Your task to perform on an android device: install app "Duolingo: language lessons" Image 0: 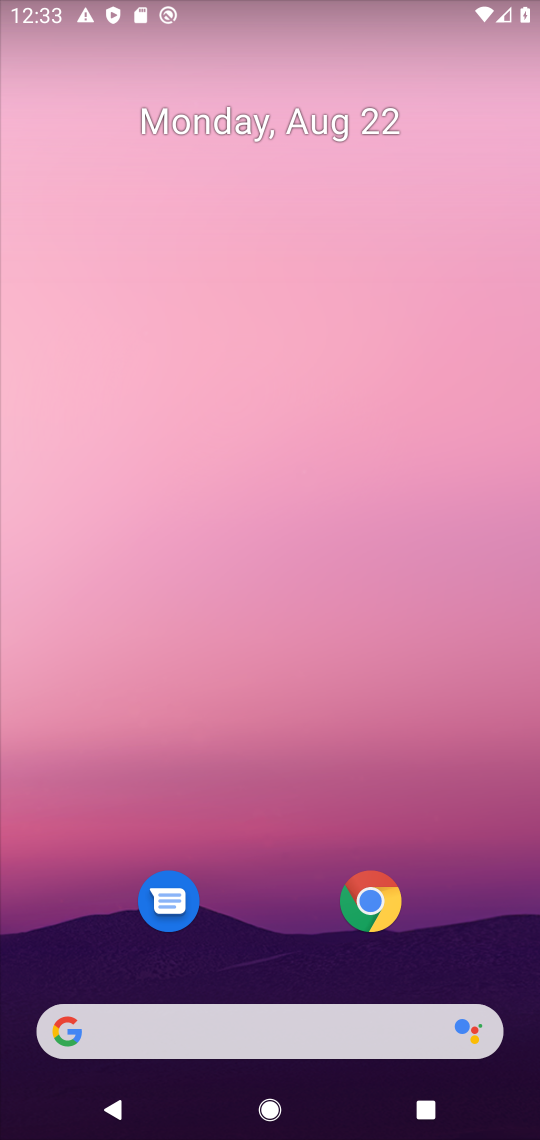
Step 0: drag from (334, 1028) to (230, 149)
Your task to perform on an android device: install app "Duolingo: language lessons" Image 1: 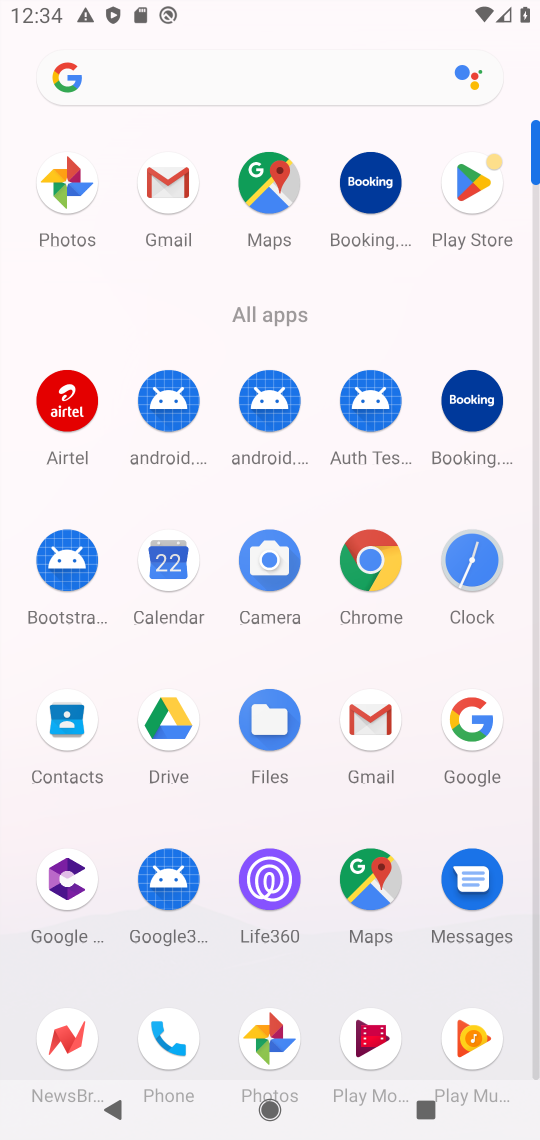
Step 1: click (474, 188)
Your task to perform on an android device: install app "Duolingo: language lessons" Image 2: 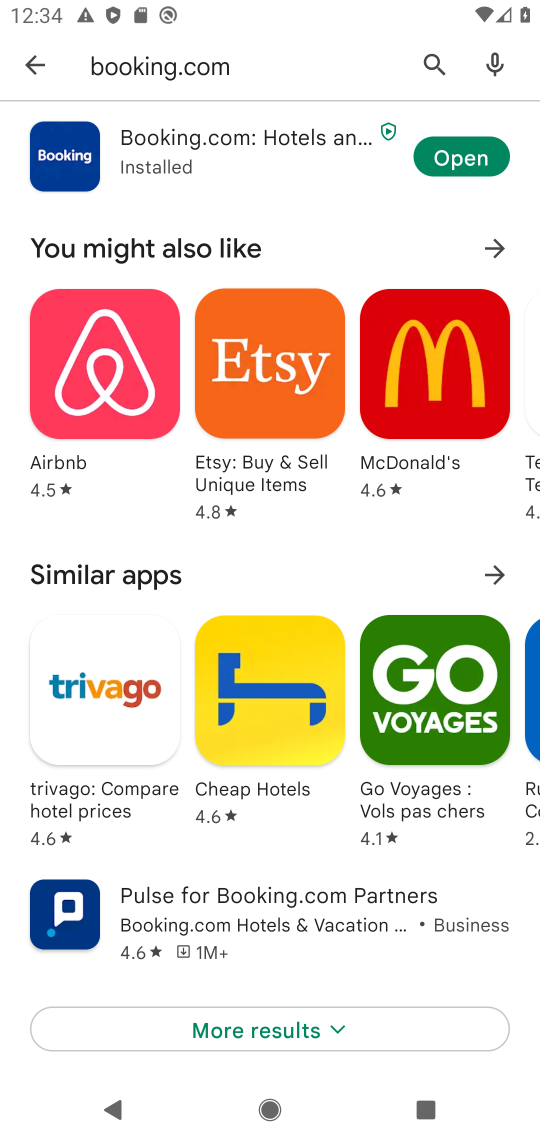
Step 2: click (438, 63)
Your task to perform on an android device: install app "Duolingo: language lessons" Image 3: 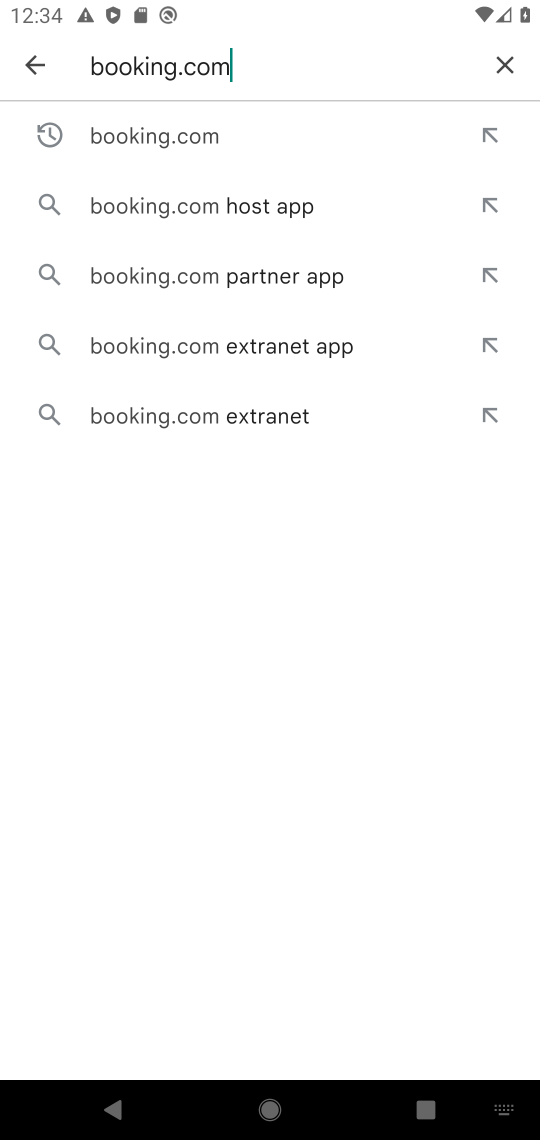
Step 3: click (507, 71)
Your task to perform on an android device: install app "Duolingo: language lessons" Image 4: 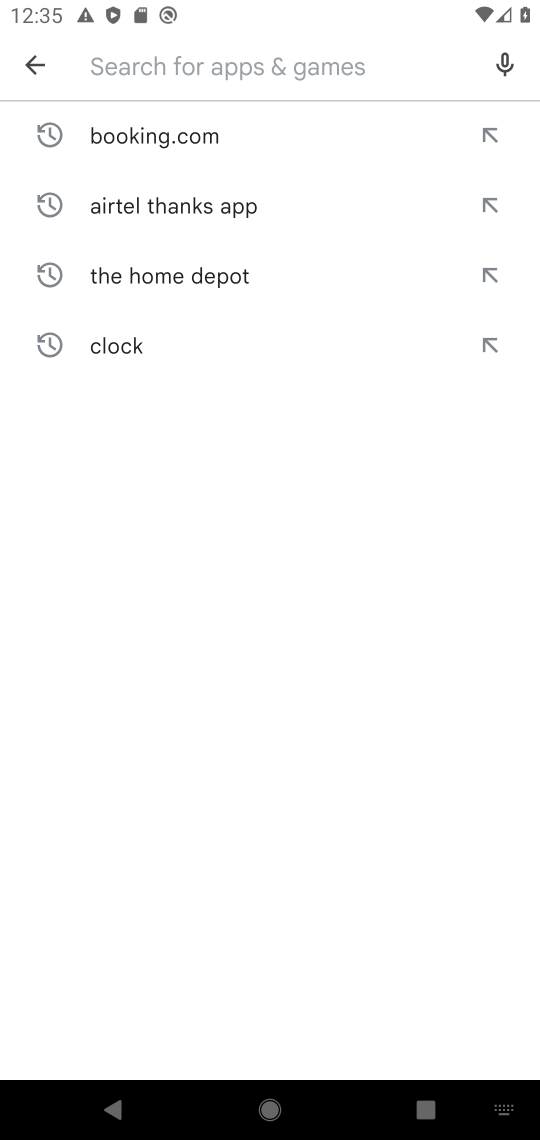
Step 4: type "duolingo"
Your task to perform on an android device: install app "Duolingo: language lessons" Image 5: 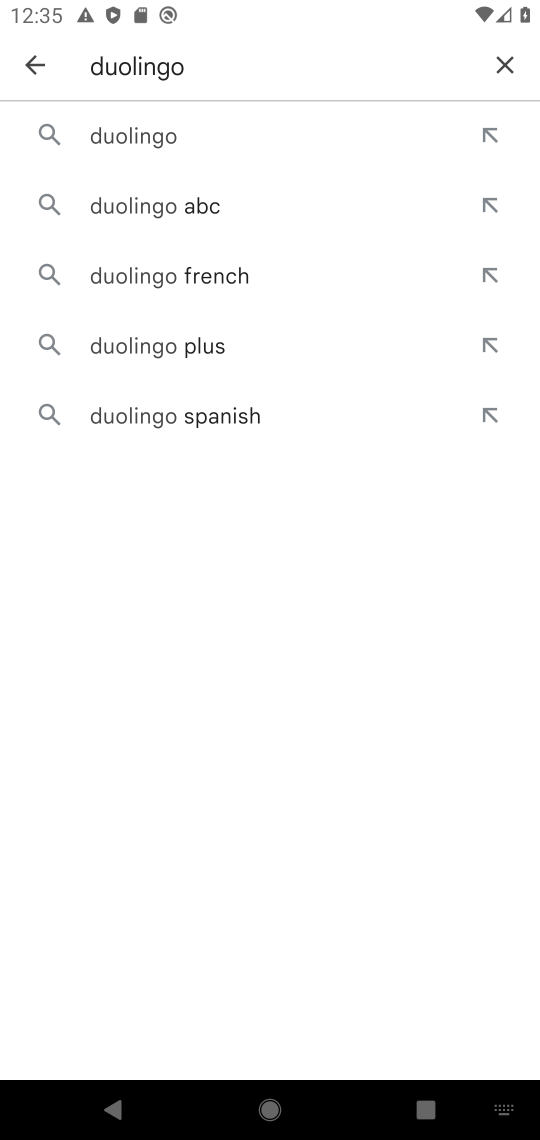
Step 5: click (211, 125)
Your task to perform on an android device: install app "Duolingo: language lessons" Image 6: 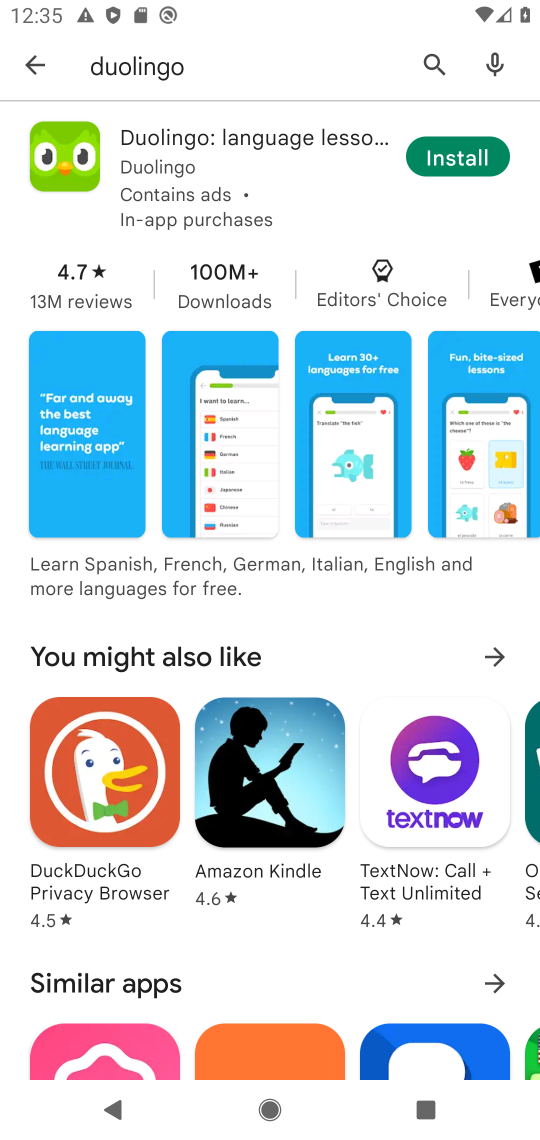
Step 6: click (451, 151)
Your task to perform on an android device: install app "Duolingo: language lessons" Image 7: 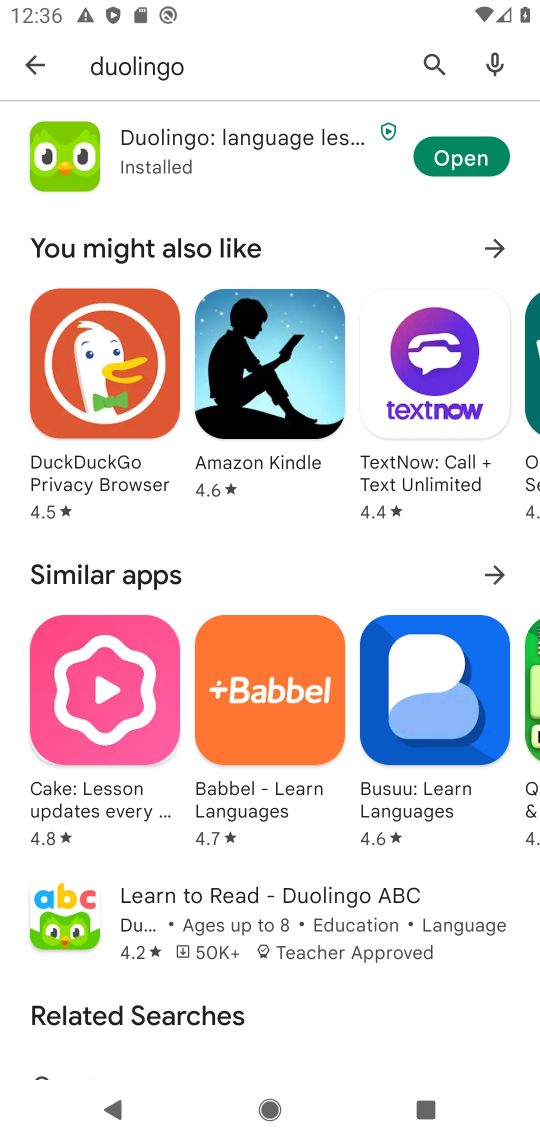
Step 7: task complete